Your task to perform on an android device: Search for sushi restaurants on Maps Image 0: 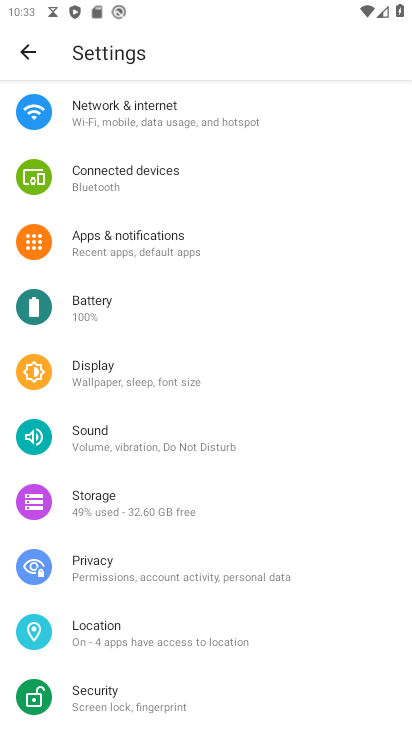
Step 0: press back button
Your task to perform on an android device: Search for sushi restaurants on Maps Image 1: 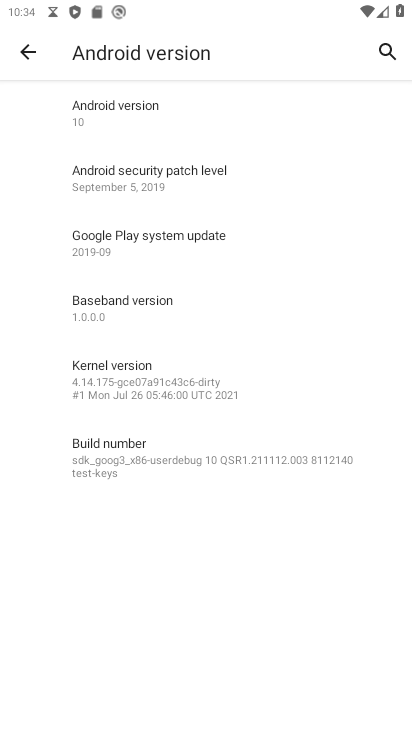
Step 1: press back button
Your task to perform on an android device: Search for sushi restaurants on Maps Image 2: 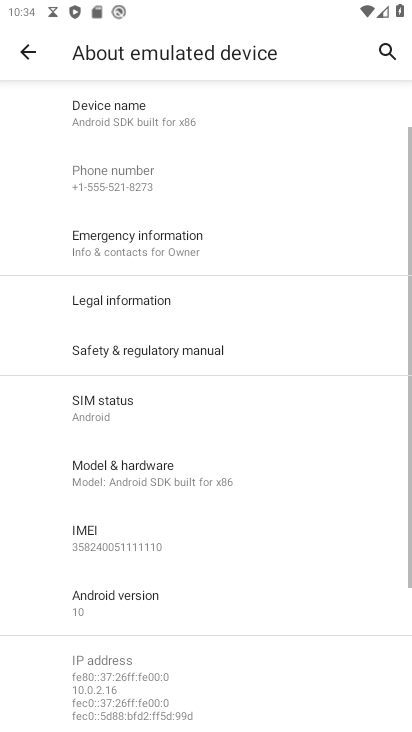
Step 2: press back button
Your task to perform on an android device: Search for sushi restaurants on Maps Image 3: 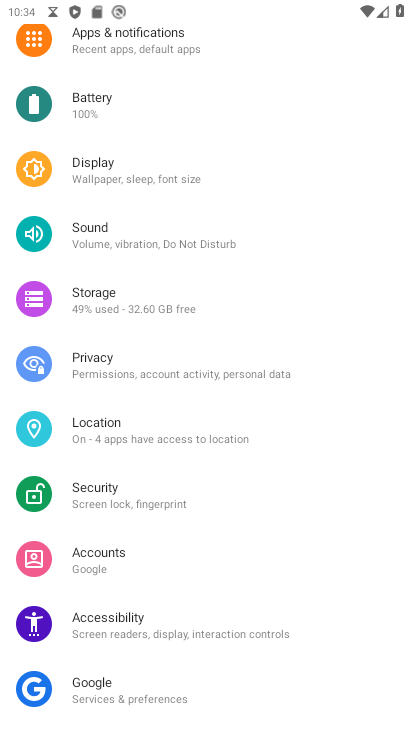
Step 3: press back button
Your task to perform on an android device: Search for sushi restaurants on Maps Image 4: 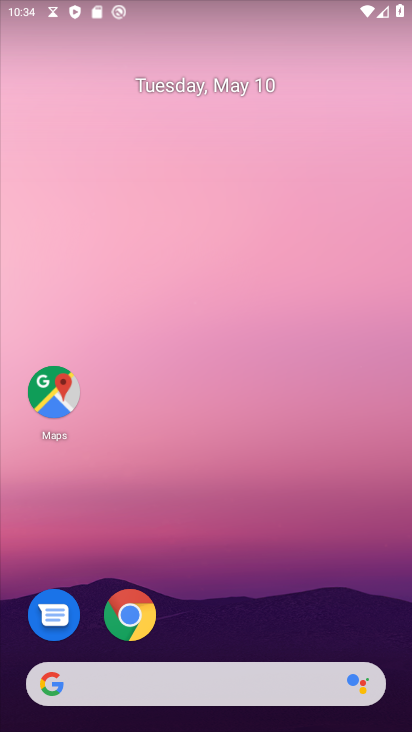
Step 4: click (53, 393)
Your task to perform on an android device: Search for sushi restaurants on Maps Image 5: 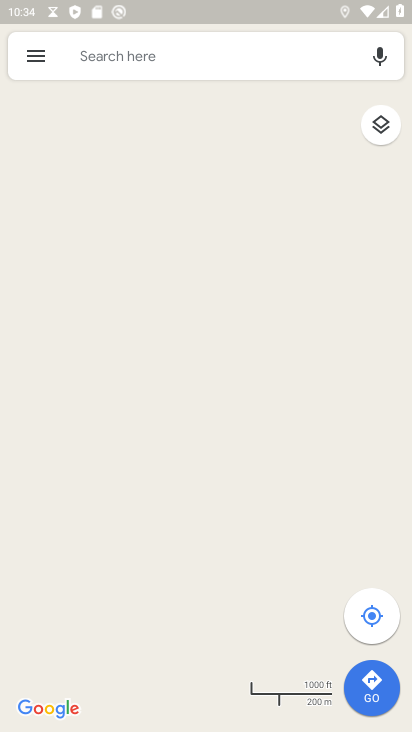
Step 5: click (138, 55)
Your task to perform on an android device: Search for sushi restaurants on Maps Image 6: 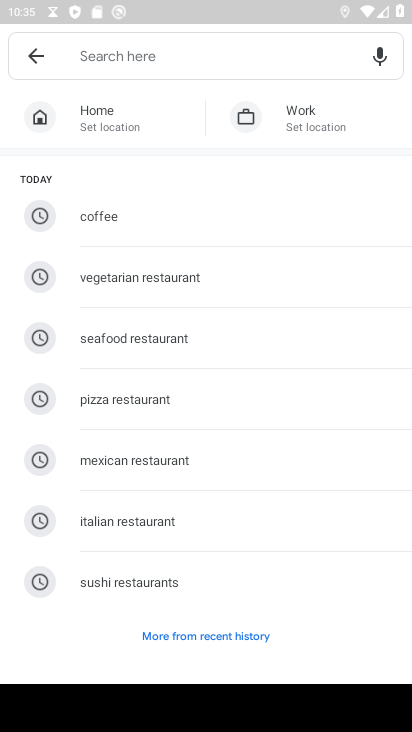
Step 6: type "sushi restaurants"
Your task to perform on an android device: Search for sushi restaurants on Maps Image 7: 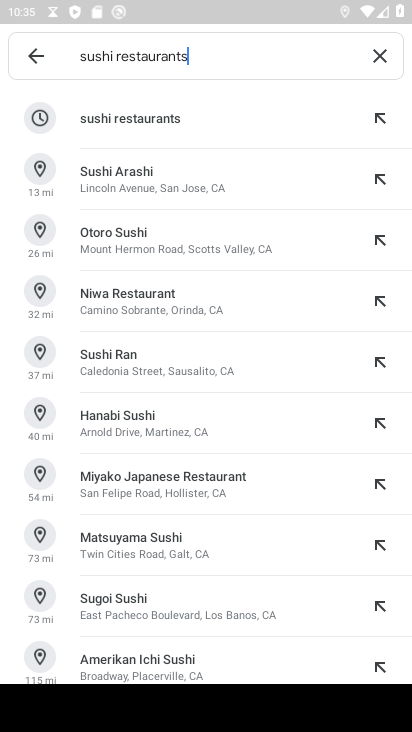
Step 7: click (164, 121)
Your task to perform on an android device: Search for sushi restaurants on Maps Image 8: 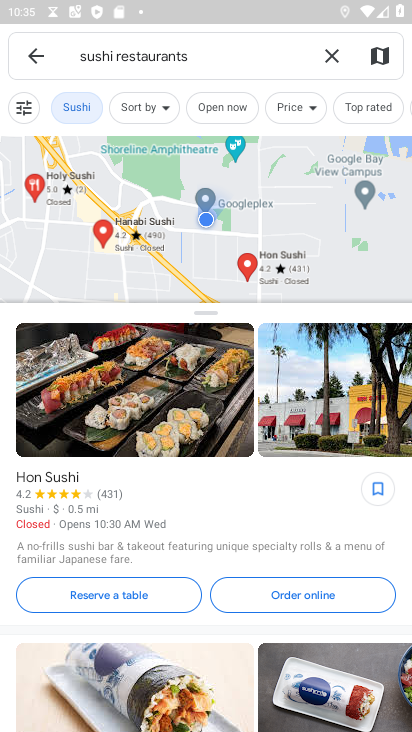
Step 8: task complete